Your task to perform on an android device: Go to Google maps Image 0: 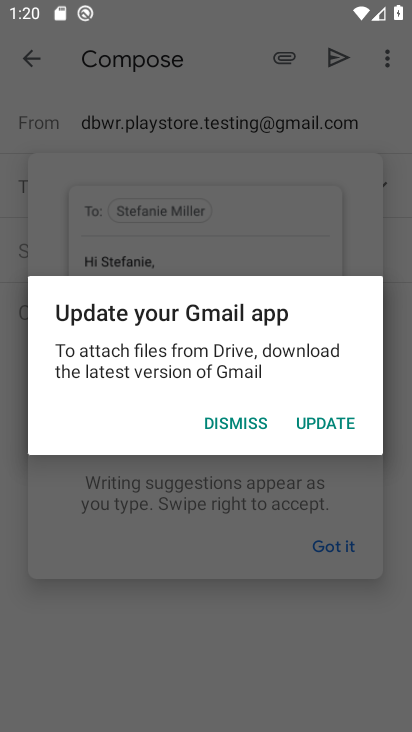
Step 0: press home button
Your task to perform on an android device: Go to Google maps Image 1: 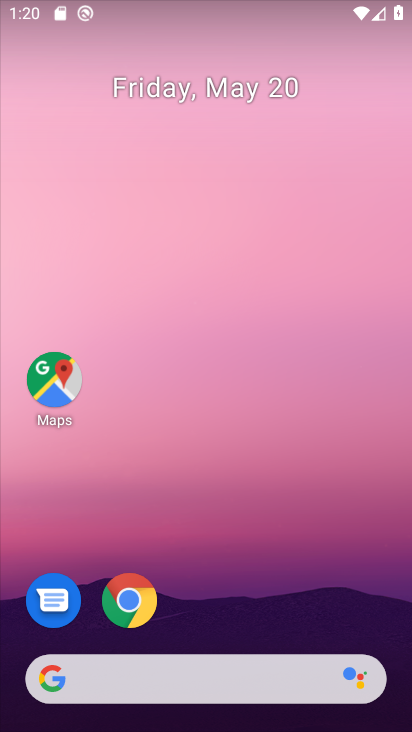
Step 1: click (63, 380)
Your task to perform on an android device: Go to Google maps Image 2: 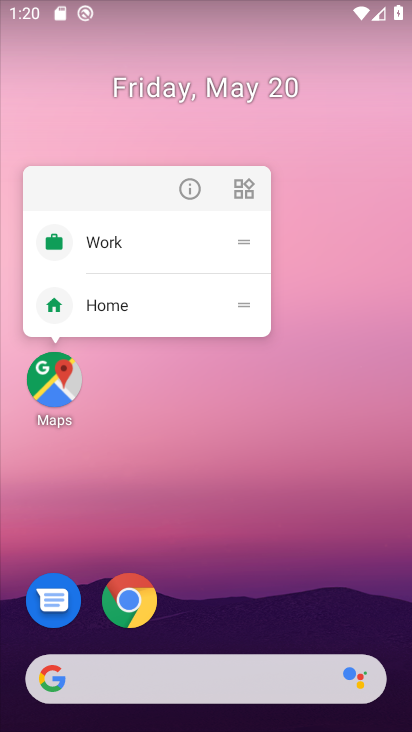
Step 2: click (73, 367)
Your task to perform on an android device: Go to Google maps Image 3: 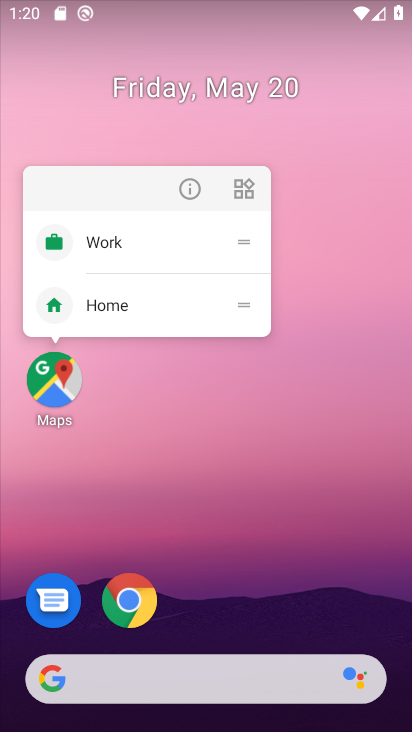
Step 3: click (53, 372)
Your task to perform on an android device: Go to Google maps Image 4: 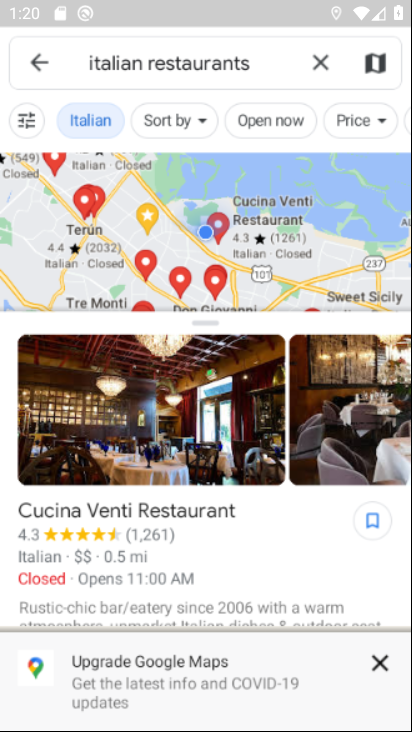
Step 4: task complete